Your task to perform on an android device: turn vacation reply on in the gmail app Image 0: 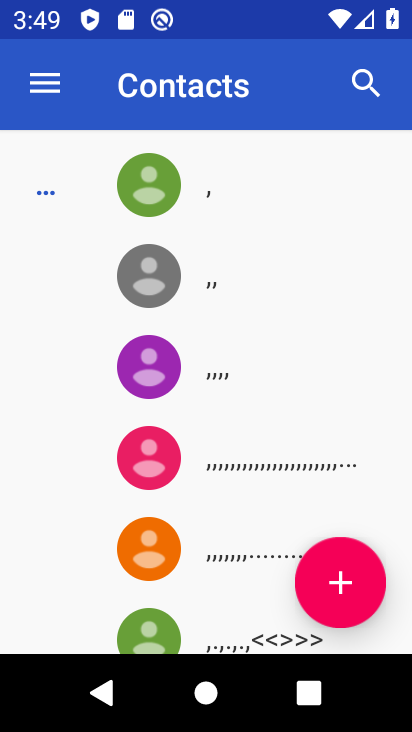
Step 0: press home button
Your task to perform on an android device: turn vacation reply on in the gmail app Image 1: 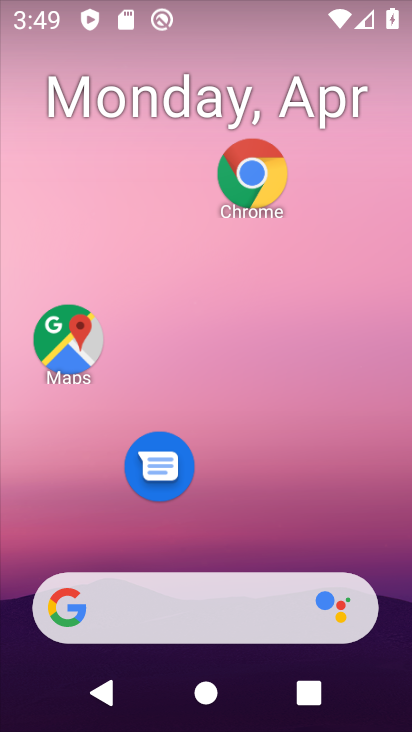
Step 1: drag from (389, 571) to (329, 153)
Your task to perform on an android device: turn vacation reply on in the gmail app Image 2: 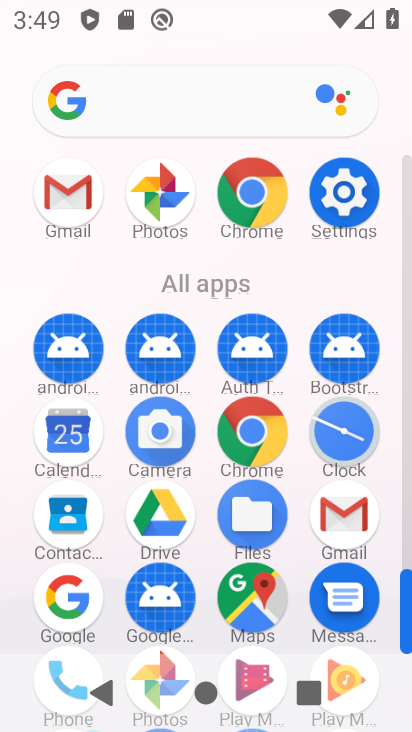
Step 2: click (55, 183)
Your task to perform on an android device: turn vacation reply on in the gmail app Image 3: 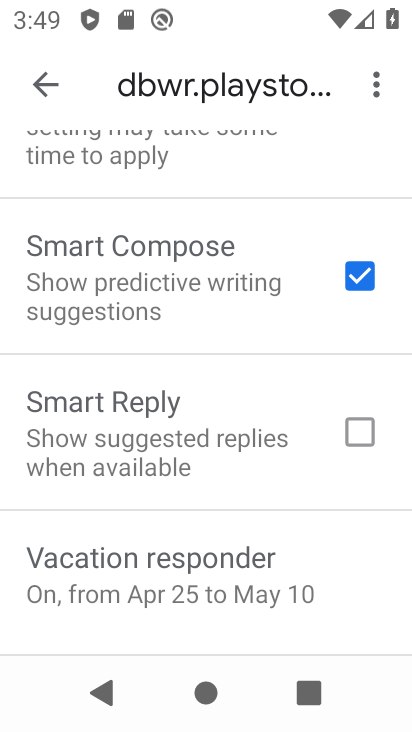
Step 3: click (187, 577)
Your task to perform on an android device: turn vacation reply on in the gmail app Image 4: 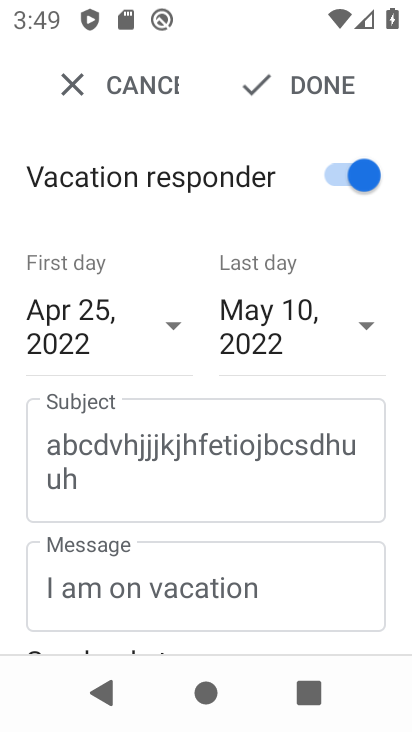
Step 4: click (339, 182)
Your task to perform on an android device: turn vacation reply on in the gmail app Image 5: 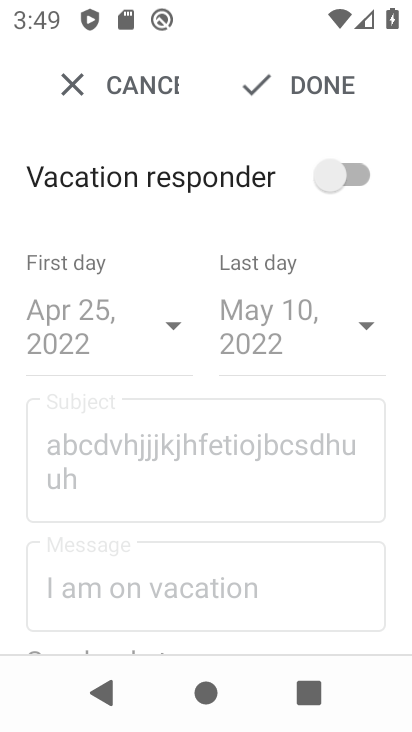
Step 5: click (339, 182)
Your task to perform on an android device: turn vacation reply on in the gmail app Image 6: 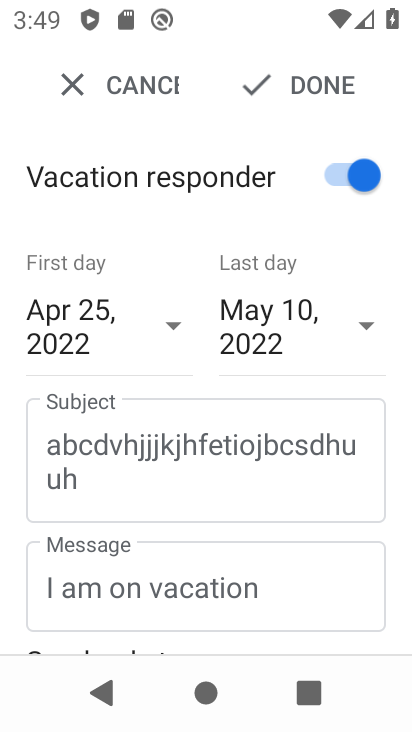
Step 6: click (325, 83)
Your task to perform on an android device: turn vacation reply on in the gmail app Image 7: 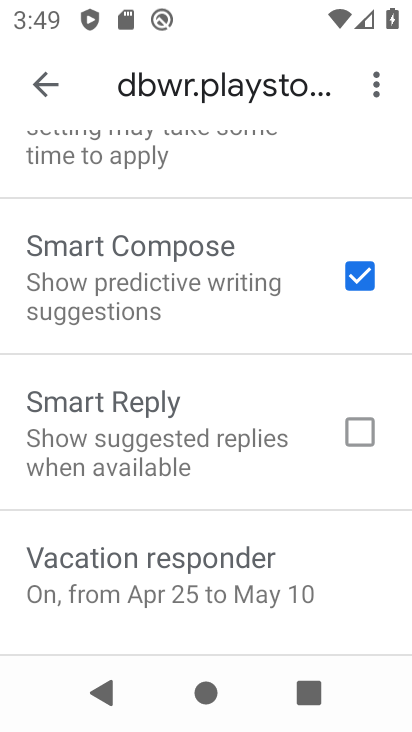
Step 7: task complete